Your task to perform on an android device: Search for the best selling coffee table on Crate & Barrel Image 0: 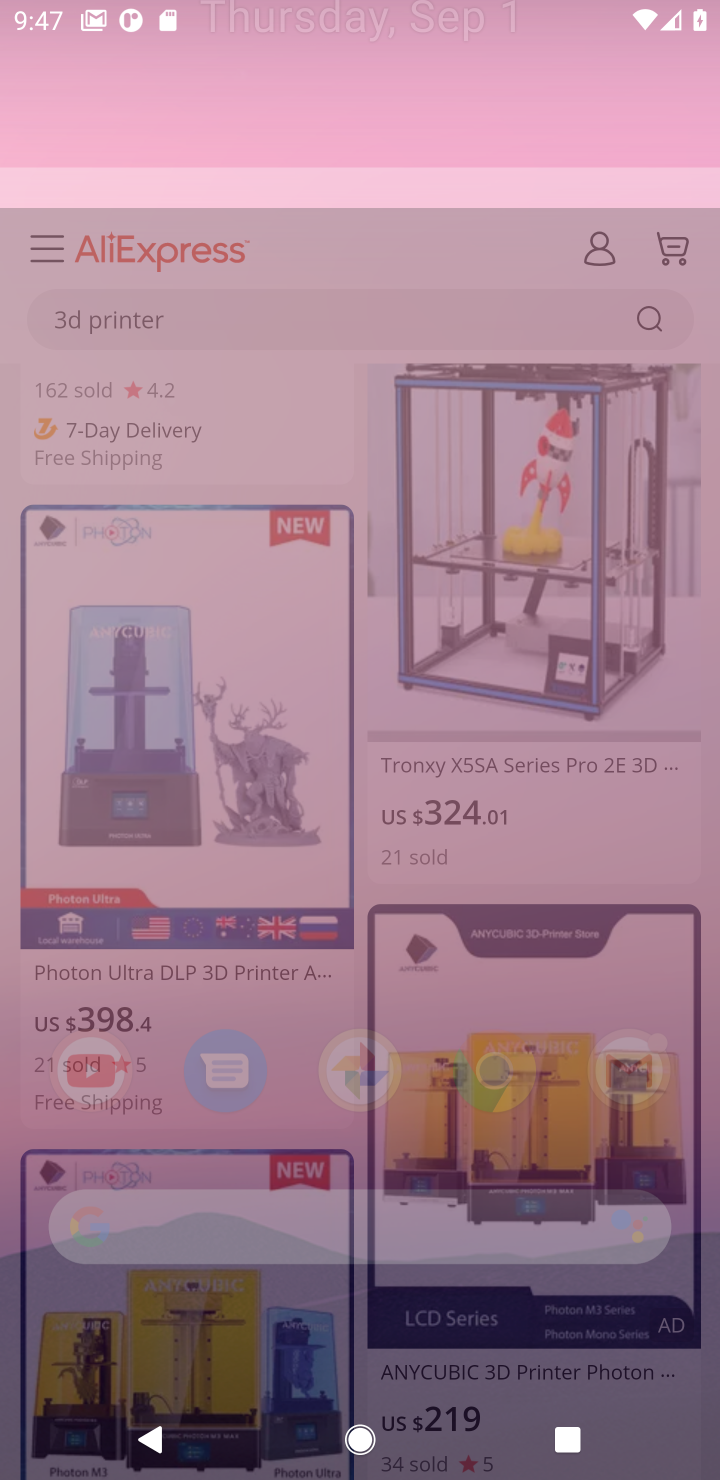
Step 0: press home button
Your task to perform on an android device: Search for the best selling coffee table on Crate & Barrel Image 1: 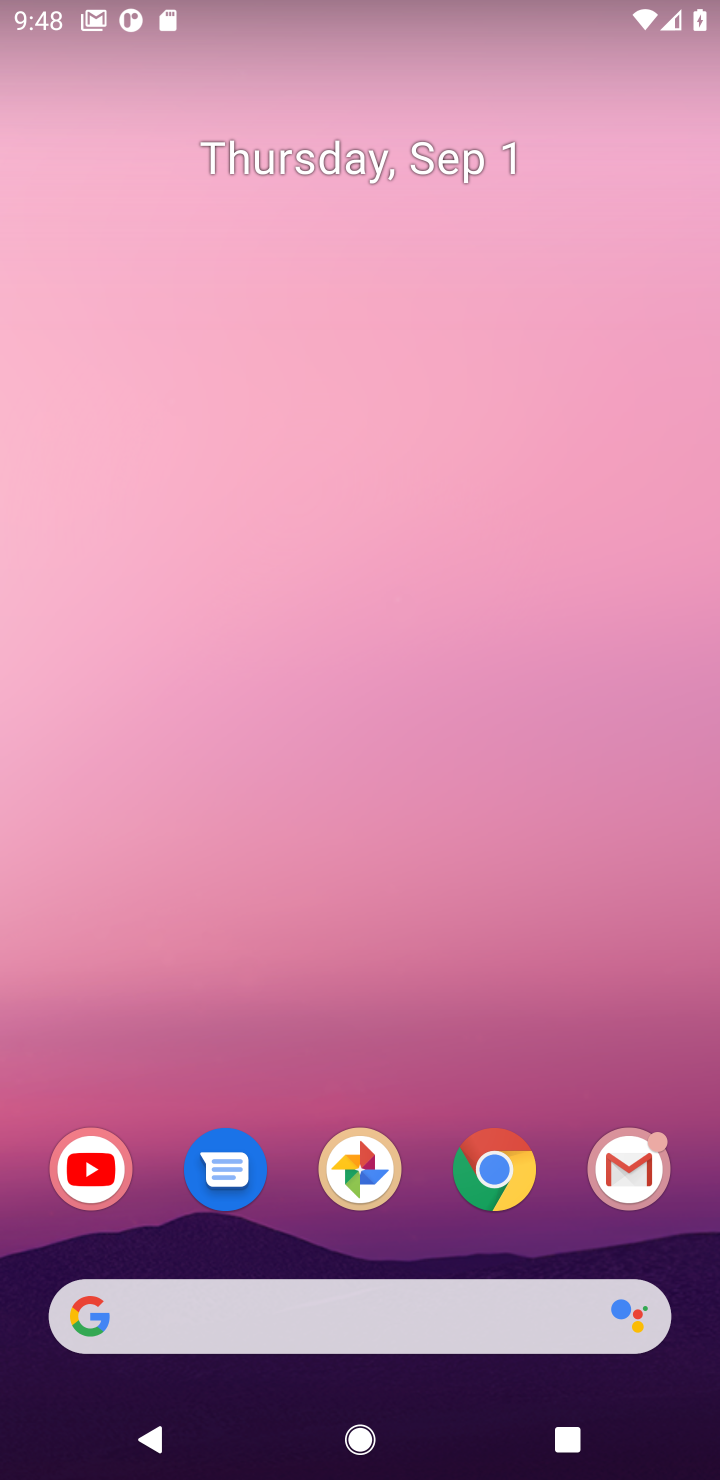
Step 1: drag from (434, 1066) to (501, 82)
Your task to perform on an android device: Search for the best selling coffee table on Crate & Barrel Image 2: 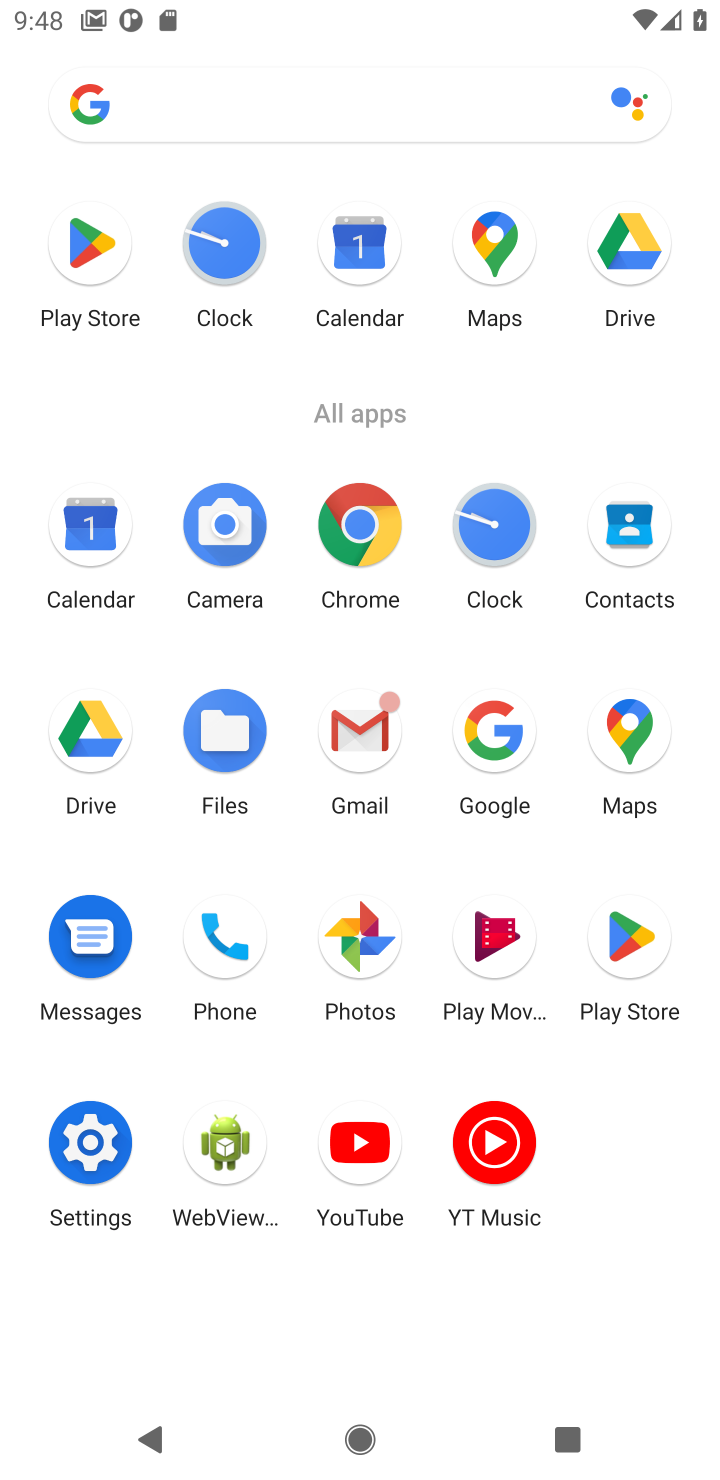
Step 2: click (364, 517)
Your task to perform on an android device: Search for the best selling coffee table on Crate & Barrel Image 3: 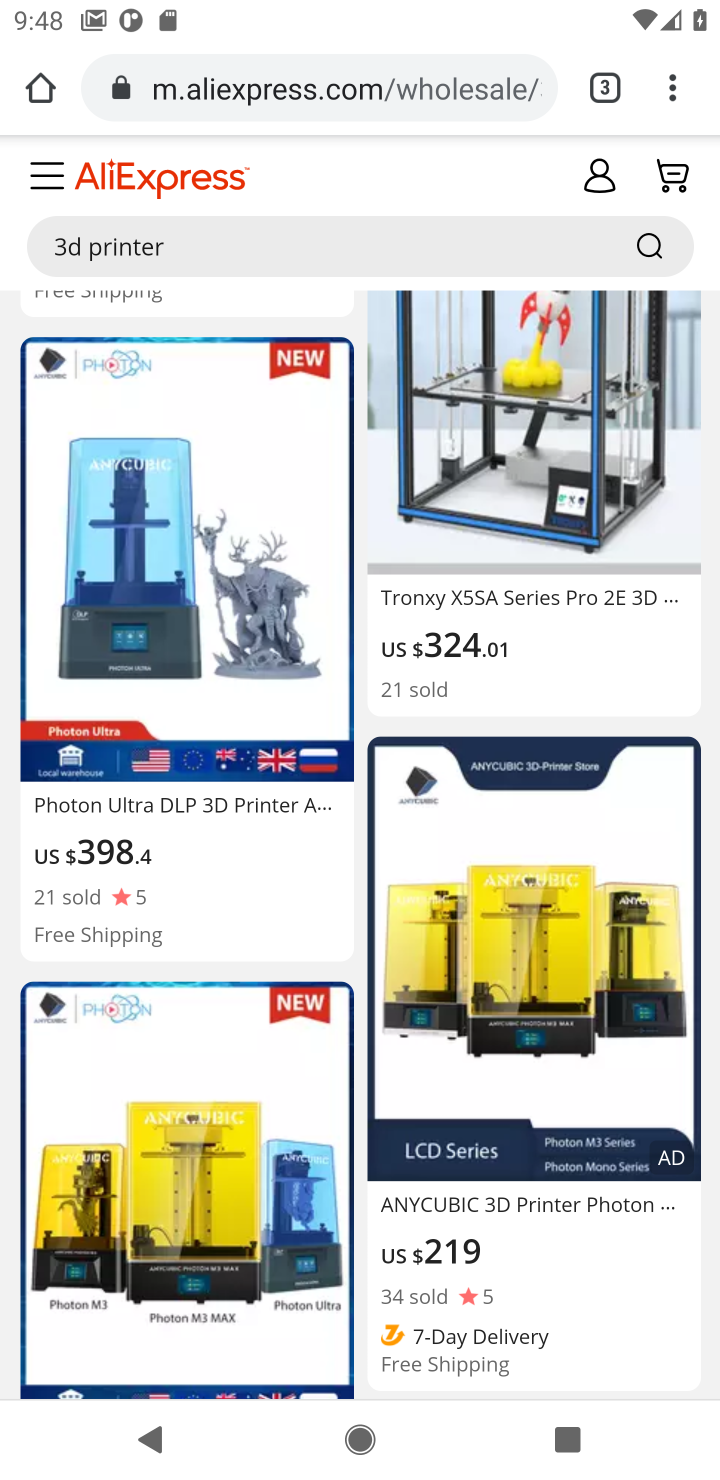
Step 3: click (247, 102)
Your task to perform on an android device: Search for the best selling coffee table on Crate & Barrel Image 4: 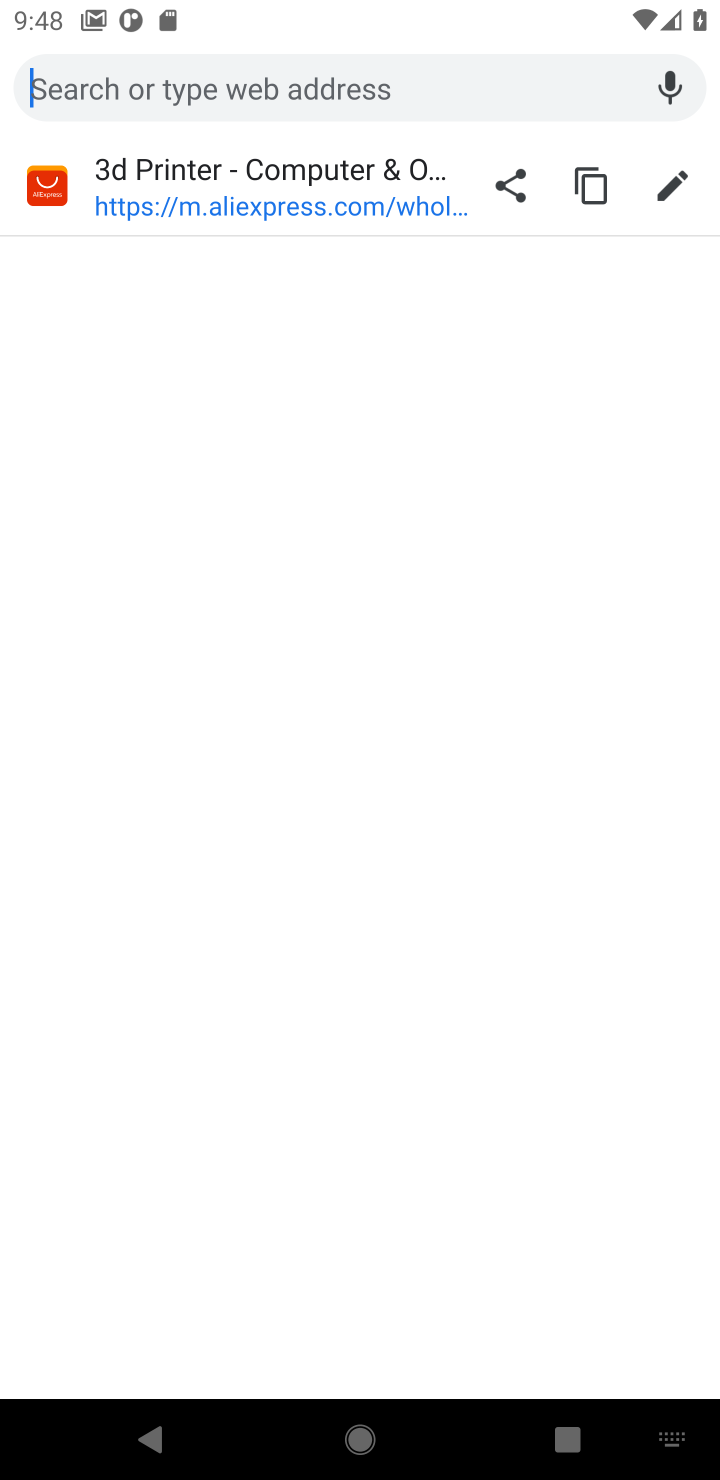
Step 4: type "best selling coffee table on Crate & Barrel"
Your task to perform on an android device: Search for the best selling coffee table on Crate & Barrel Image 5: 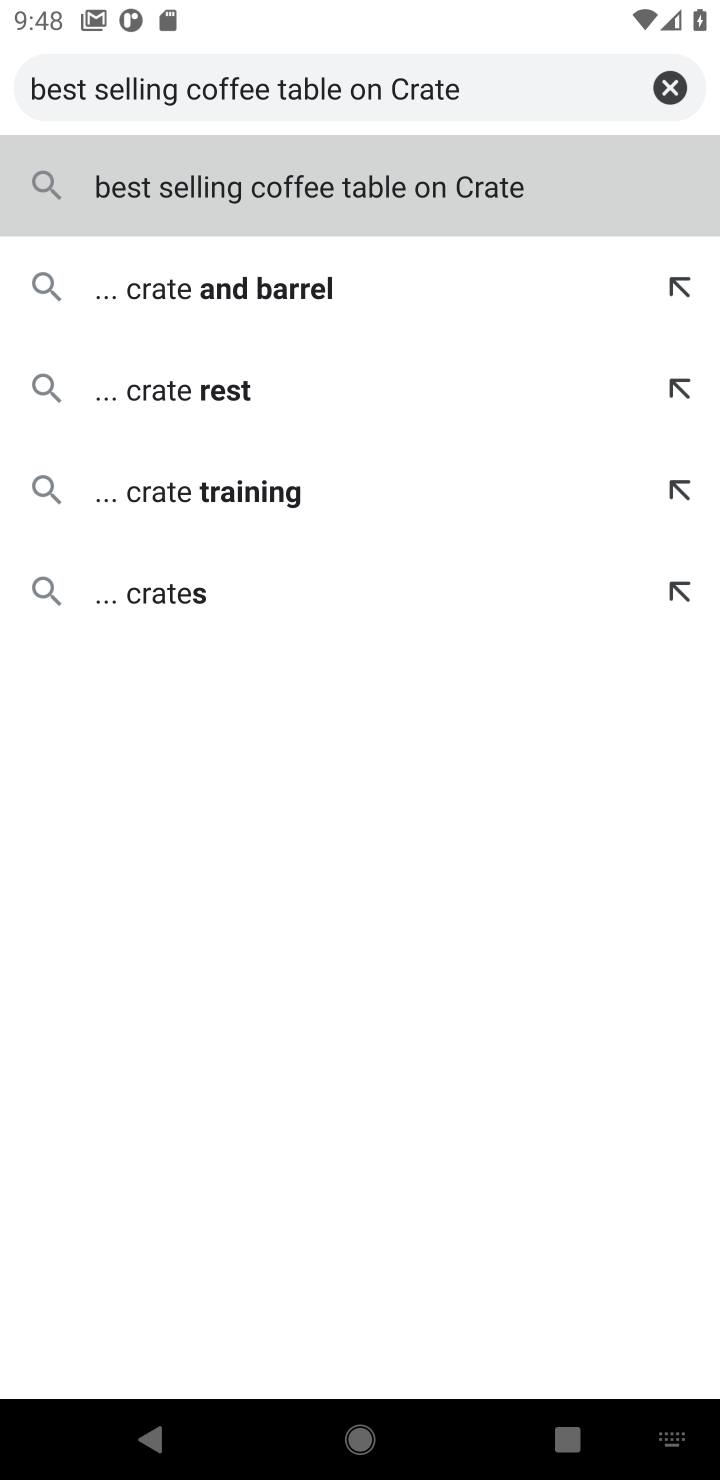
Step 5: type ""
Your task to perform on an android device: Search for the best selling coffee table on Crate & Barrel Image 6: 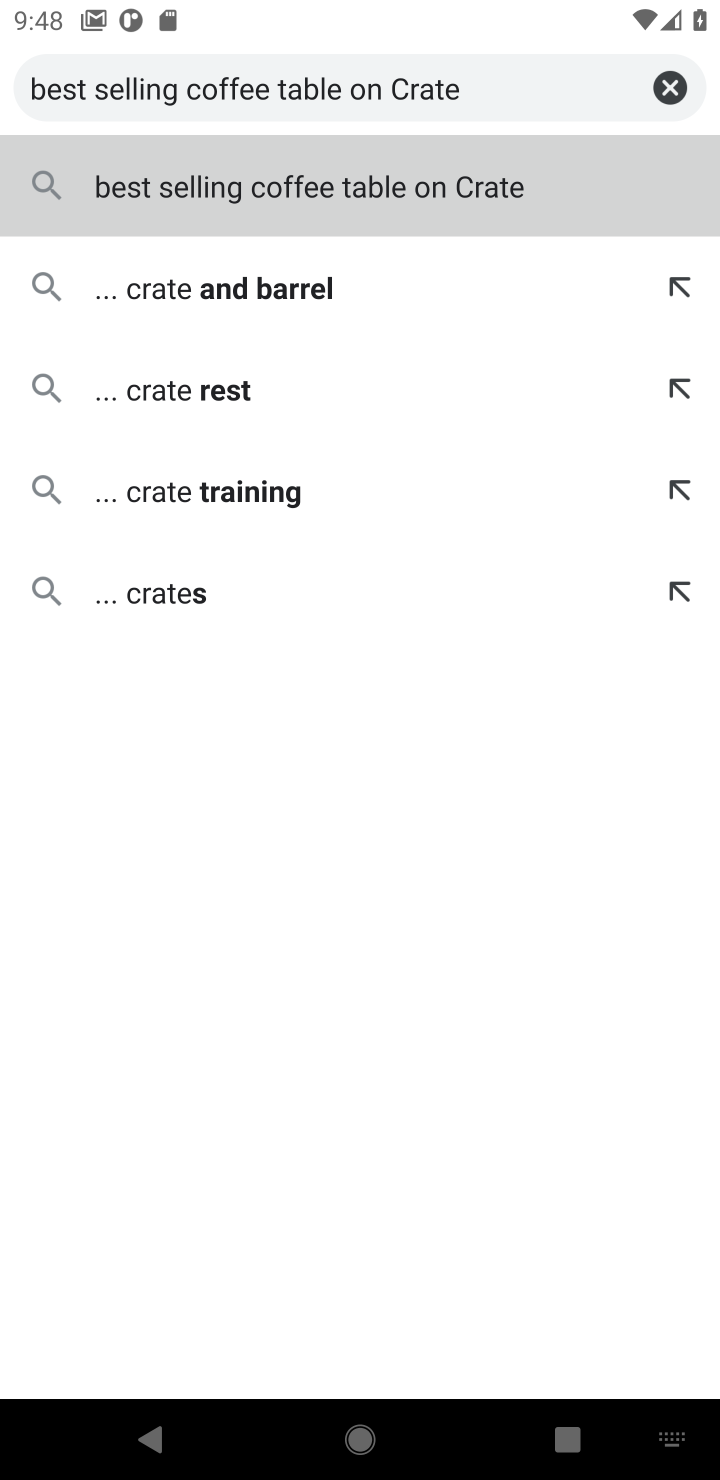
Step 6: type "& Barrel"
Your task to perform on an android device: Search for the best selling coffee table on Crate & Barrel Image 7: 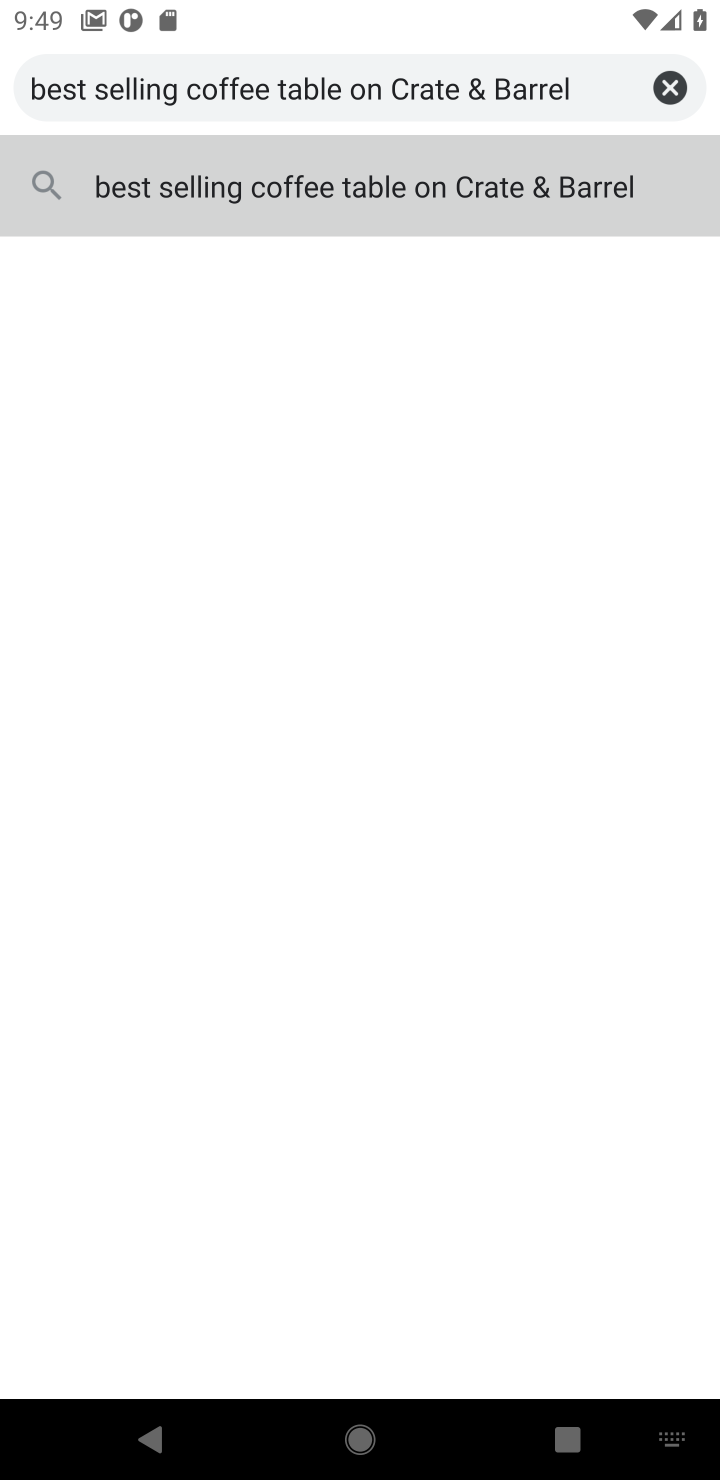
Step 7: type ""
Your task to perform on an android device: Search for the best selling coffee table on Crate & Barrel Image 8: 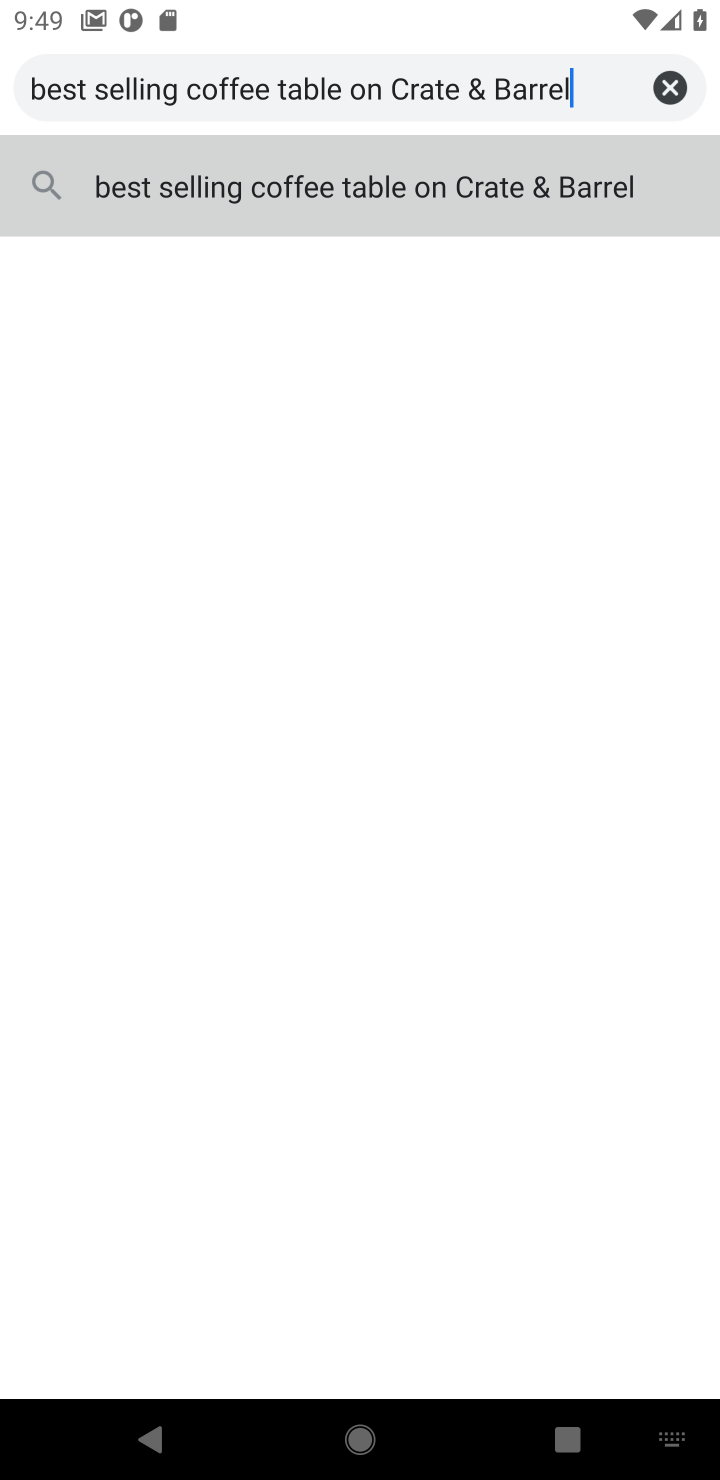
Step 8: click (218, 176)
Your task to perform on an android device: Search for the best selling coffee table on Crate & Barrel Image 9: 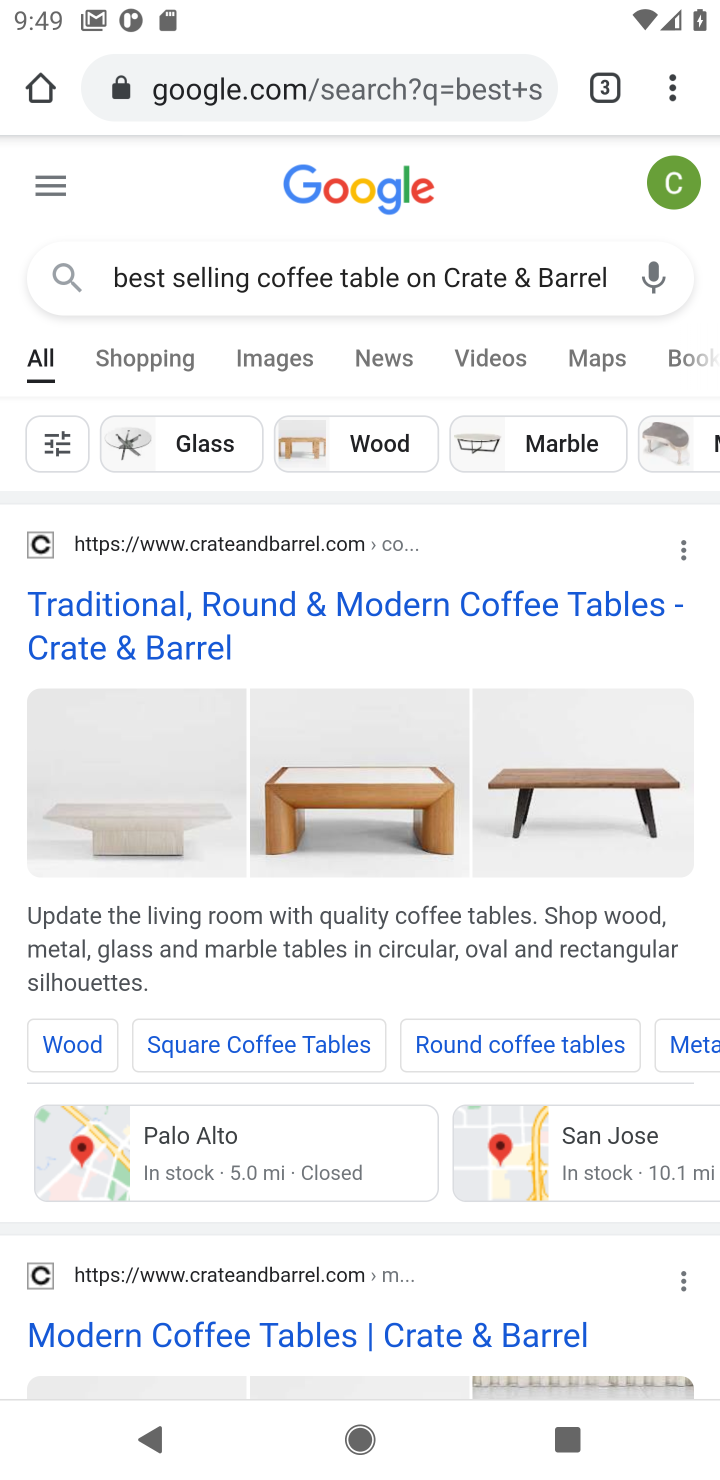
Step 9: drag from (393, 1252) to (422, 420)
Your task to perform on an android device: Search for the best selling coffee table on Crate & Barrel Image 10: 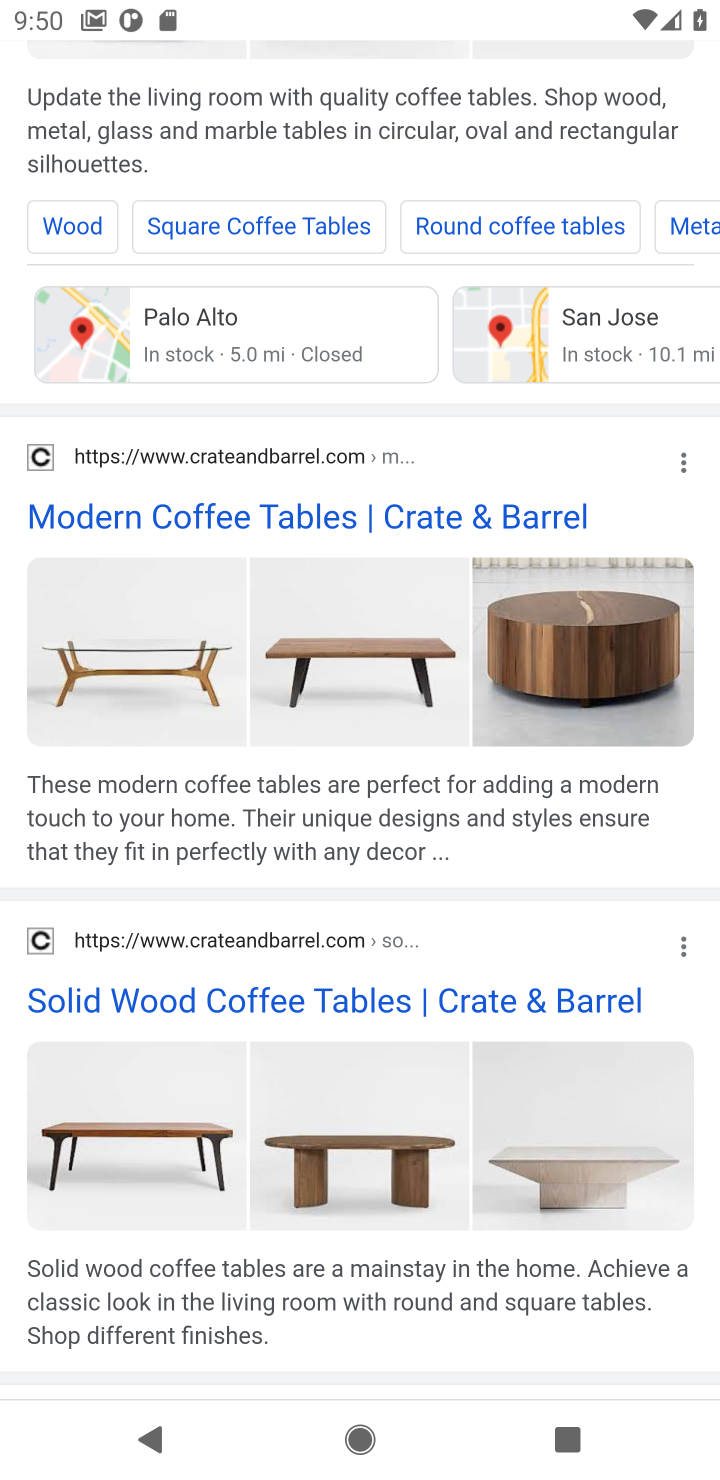
Step 10: drag from (373, 833) to (400, 133)
Your task to perform on an android device: Search for the best selling coffee table on Crate & Barrel Image 11: 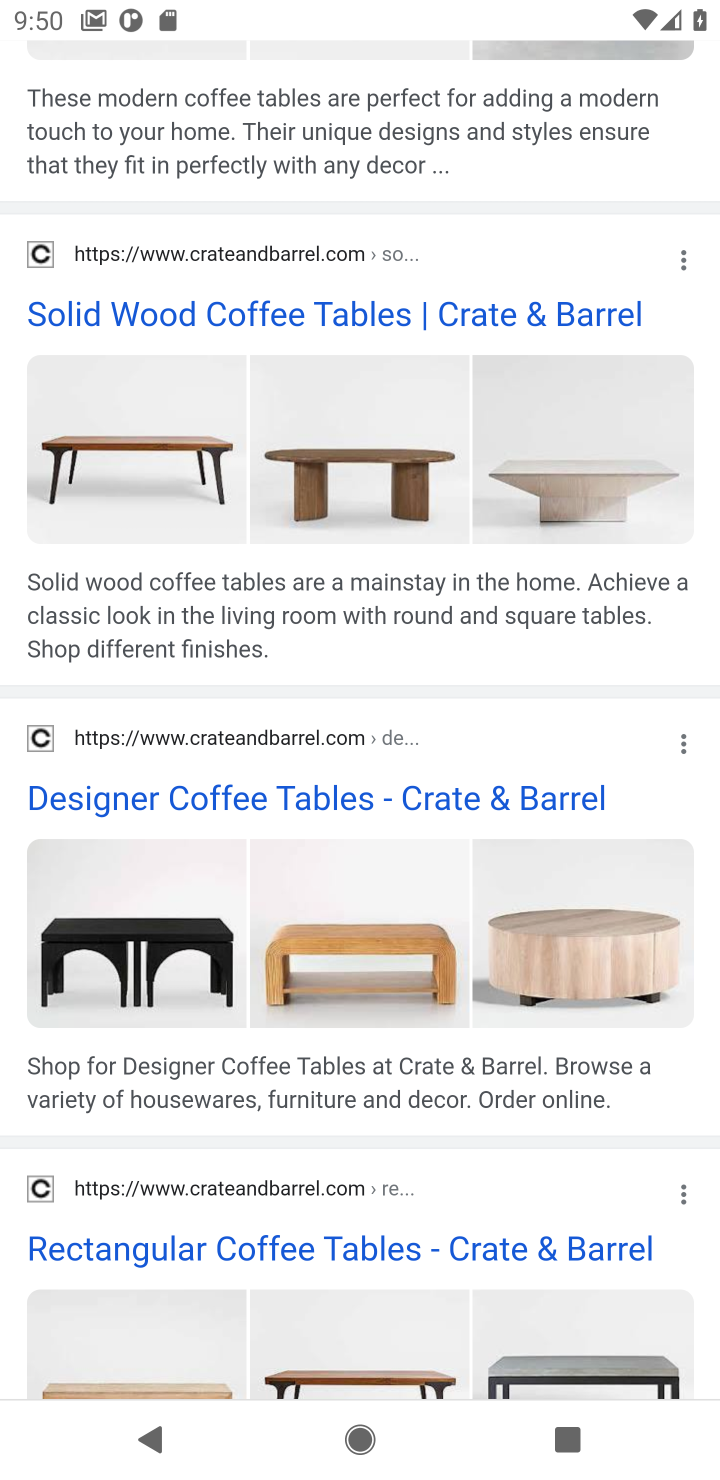
Step 11: drag from (339, 221) to (394, 1360)
Your task to perform on an android device: Search for the best selling coffee table on Crate & Barrel Image 12: 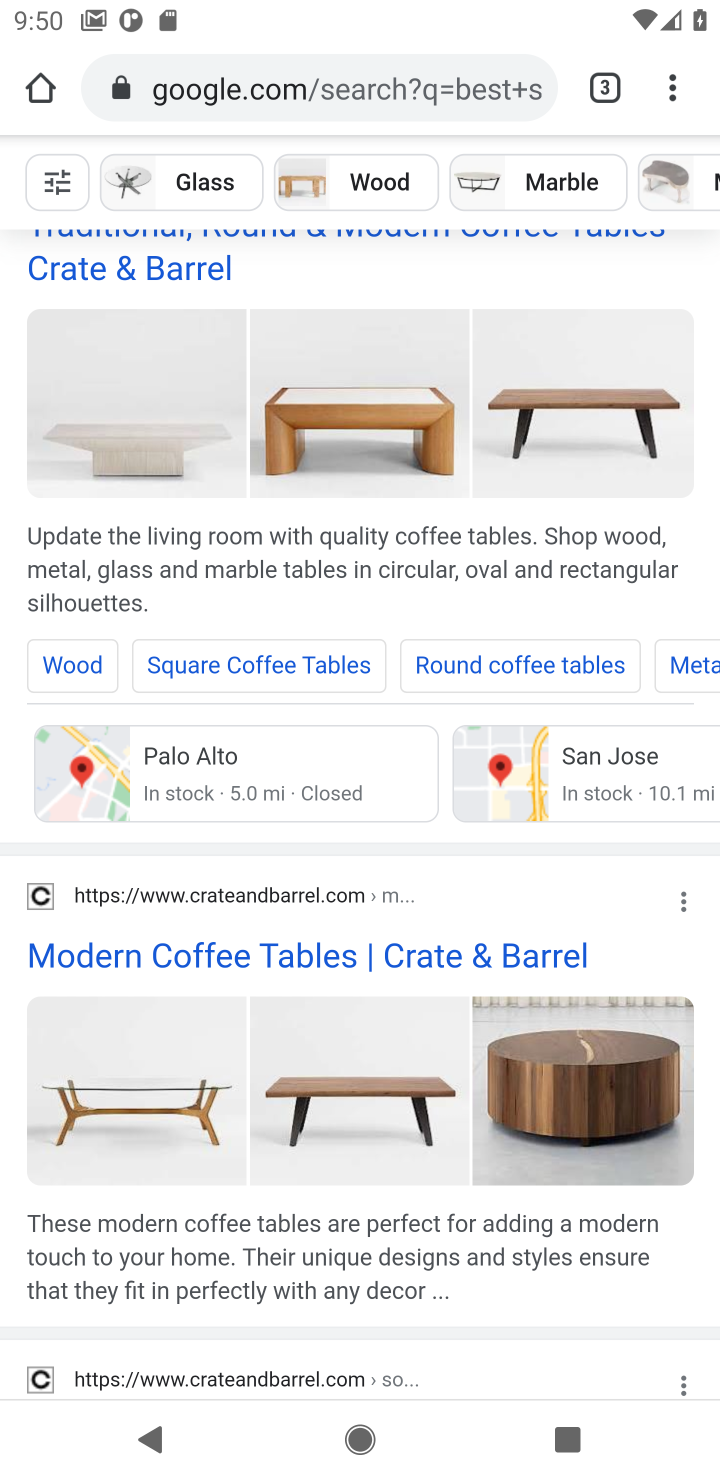
Step 12: drag from (283, 244) to (304, 1116)
Your task to perform on an android device: Search for the best selling coffee table on Crate & Barrel Image 13: 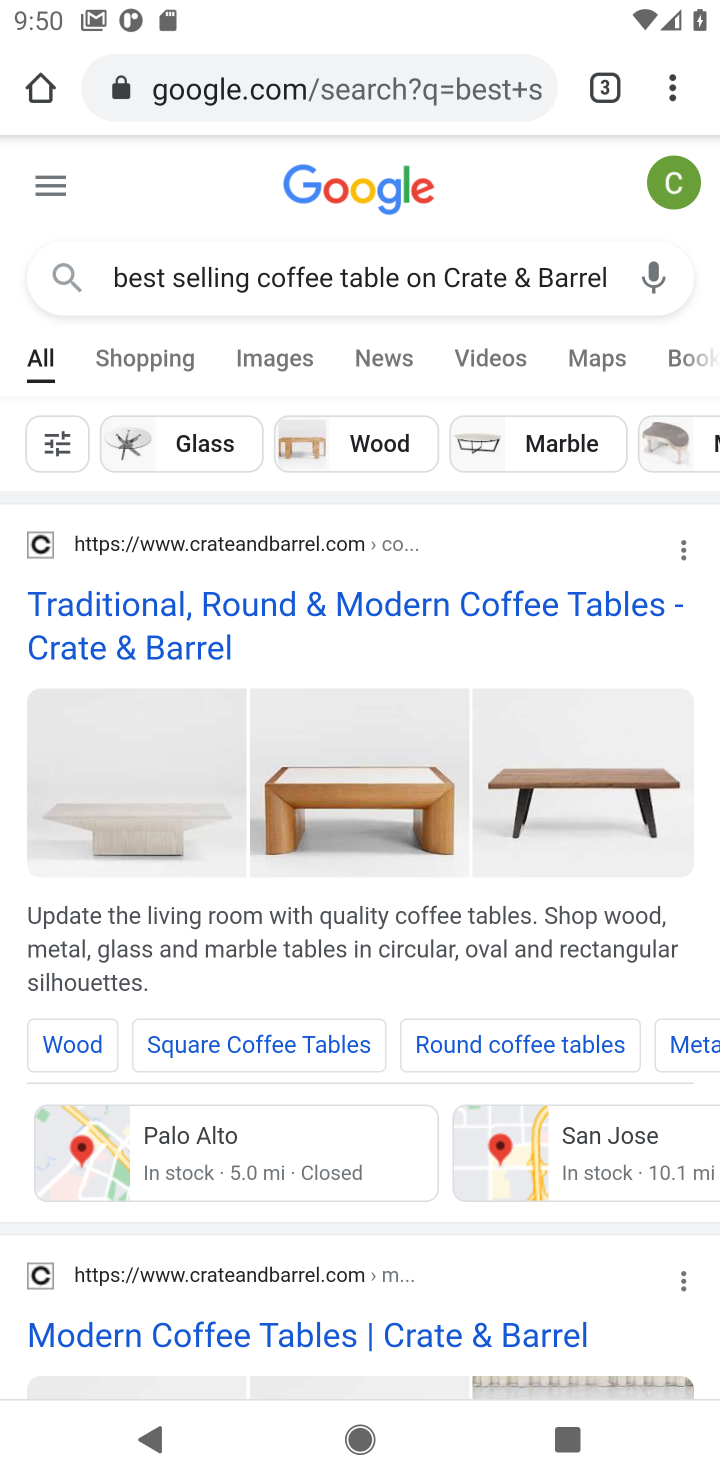
Step 13: click (337, 611)
Your task to perform on an android device: Search for the best selling coffee table on Crate & Barrel Image 14: 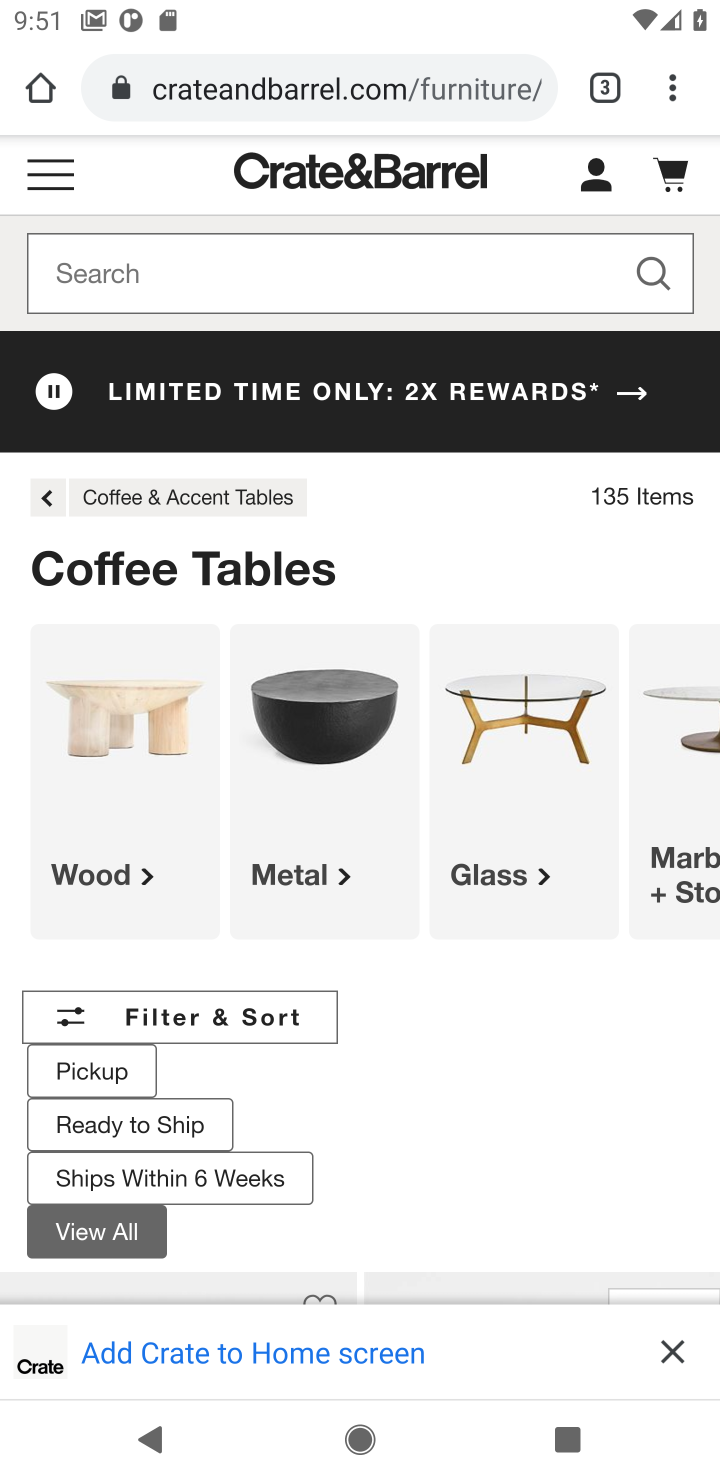
Step 14: click (663, 1343)
Your task to perform on an android device: Search for the best selling coffee table on Crate & Barrel Image 15: 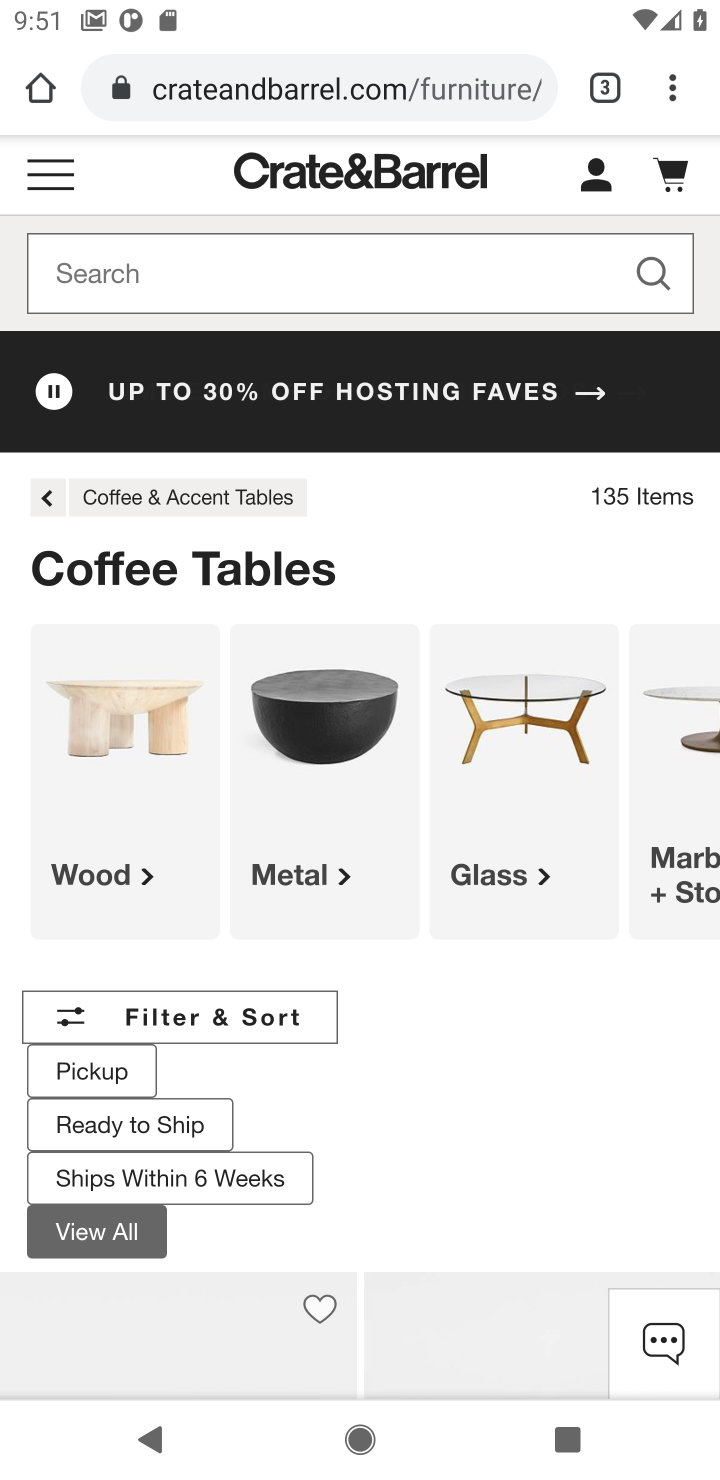
Step 15: task complete